Your task to perform on an android device: change notifications settings Image 0: 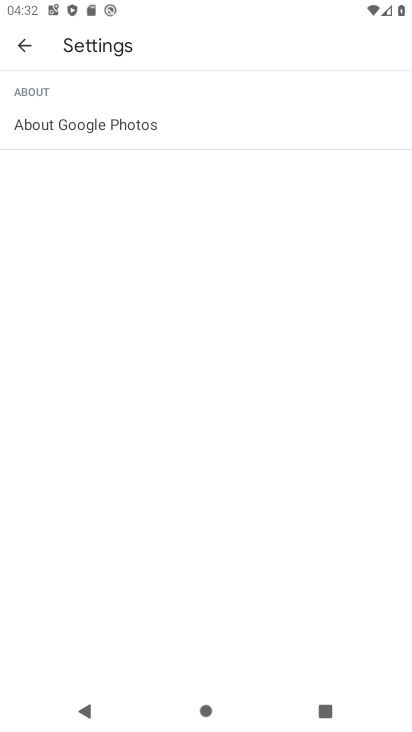
Step 0: press back button
Your task to perform on an android device: change notifications settings Image 1: 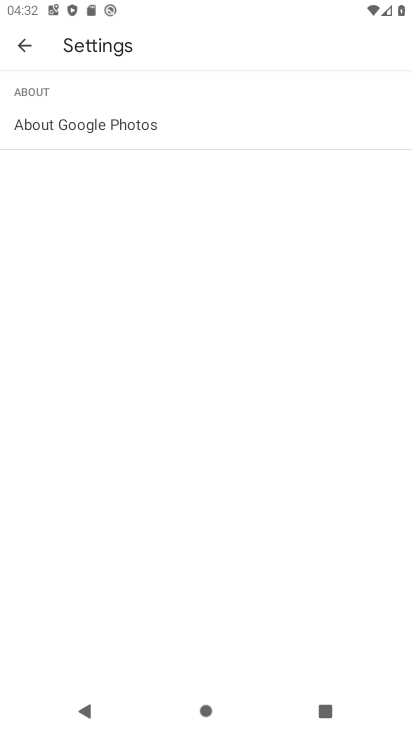
Step 1: press back button
Your task to perform on an android device: change notifications settings Image 2: 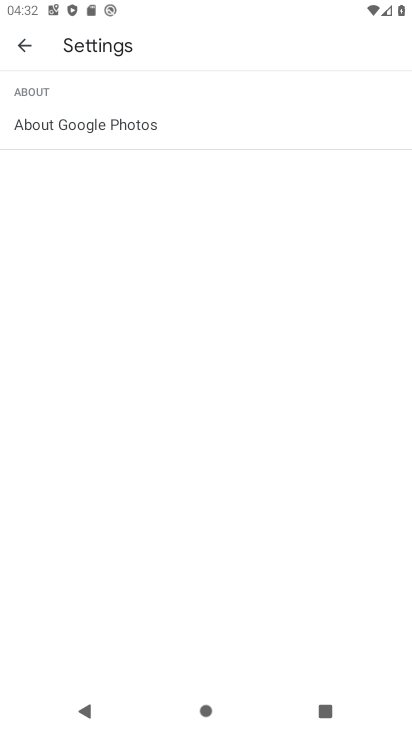
Step 2: press home button
Your task to perform on an android device: change notifications settings Image 3: 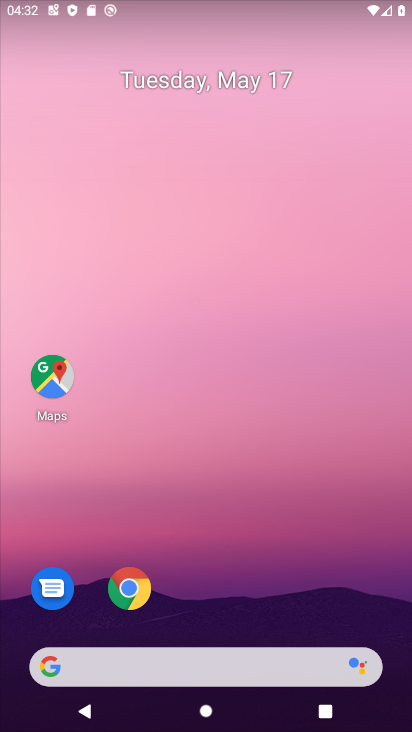
Step 3: drag from (255, 566) to (202, 202)
Your task to perform on an android device: change notifications settings Image 4: 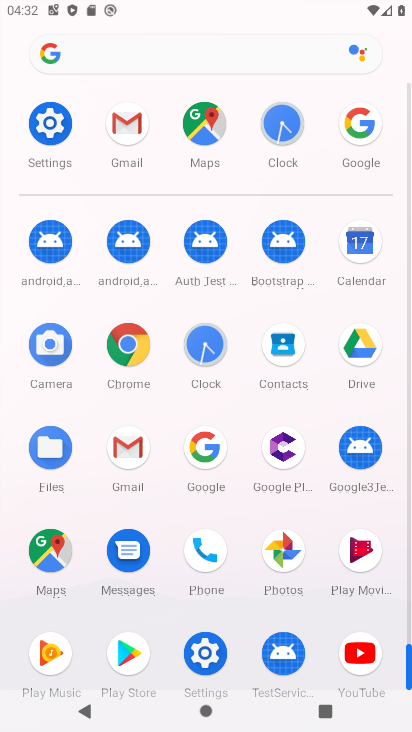
Step 4: drag from (246, 561) to (238, 393)
Your task to perform on an android device: change notifications settings Image 5: 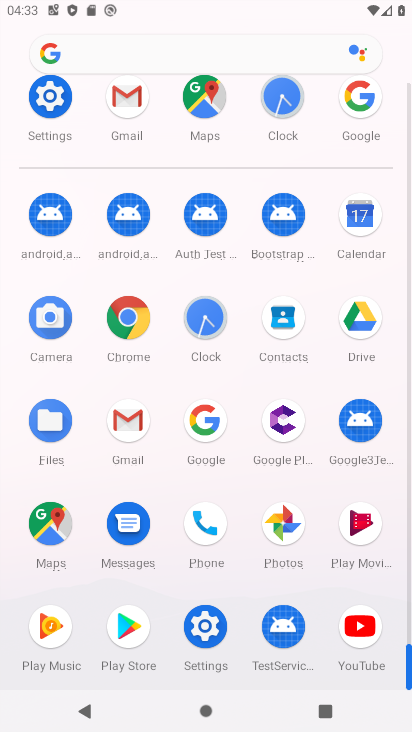
Step 5: click (203, 626)
Your task to perform on an android device: change notifications settings Image 6: 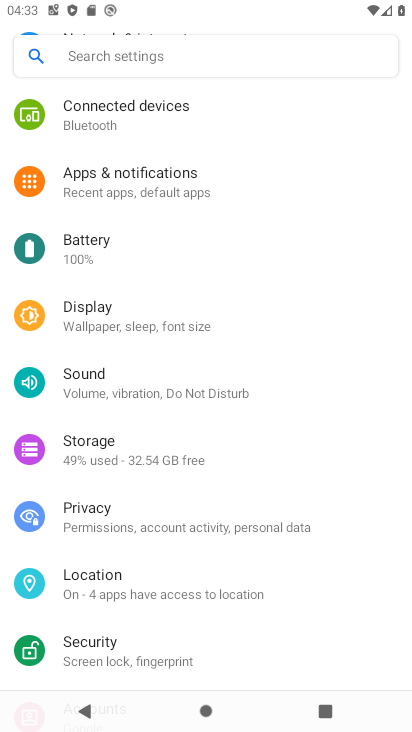
Step 6: click (119, 195)
Your task to perform on an android device: change notifications settings Image 7: 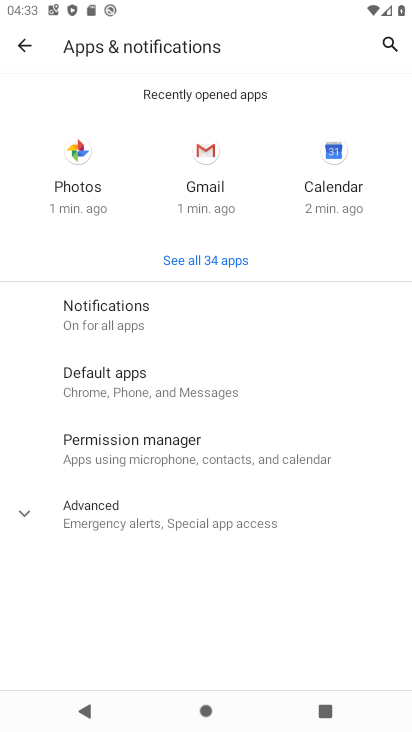
Step 7: click (104, 313)
Your task to perform on an android device: change notifications settings Image 8: 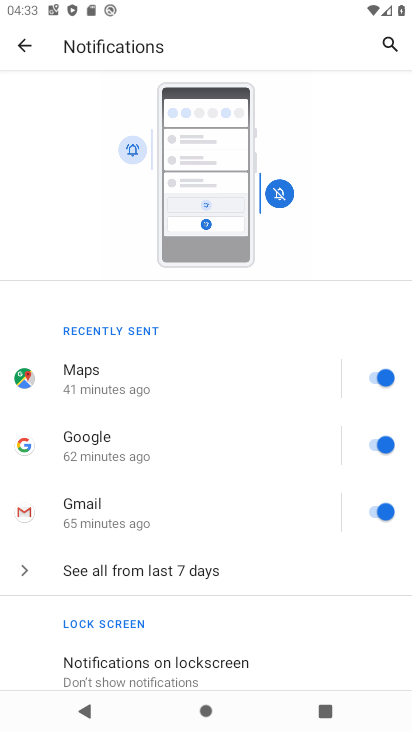
Step 8: drag from (229, 646) to (252, 417)
Your task to perform on an android device: change notifications settings Image 9: 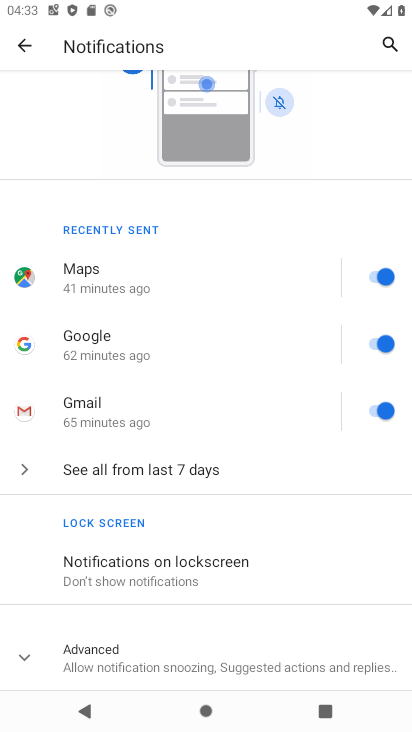
Step 9: click (235, 660)
Your task to perform on an android device: change notifications settings Image 10: 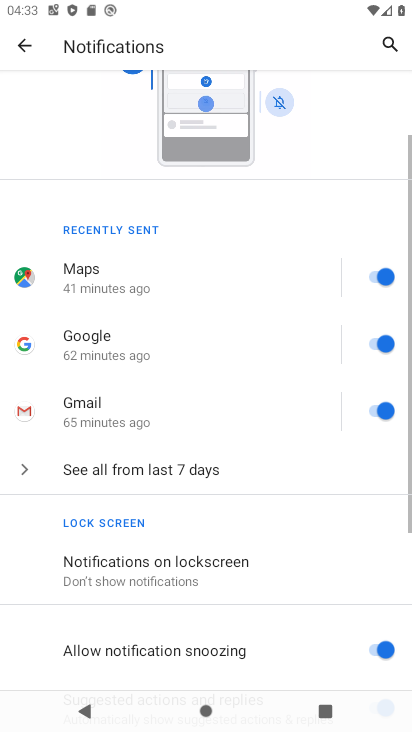
Step 10: drag from (236, 622) to (275, 440)
Your task to perform on an android device: change notifications settings Image 11: 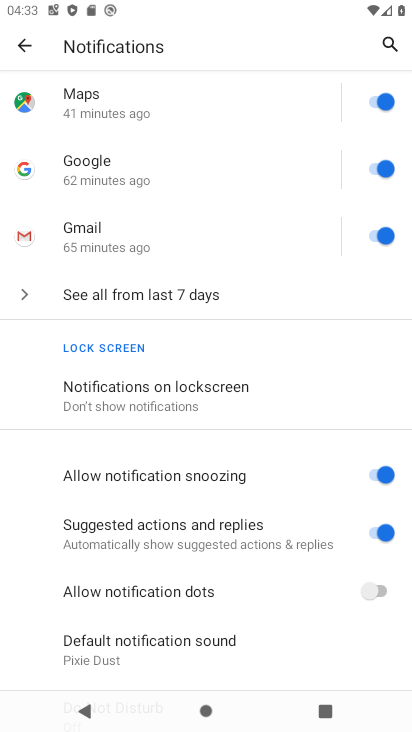
Step 11: click (360, 600)
Your task to perform on an android device: change notifications settings Image 12: 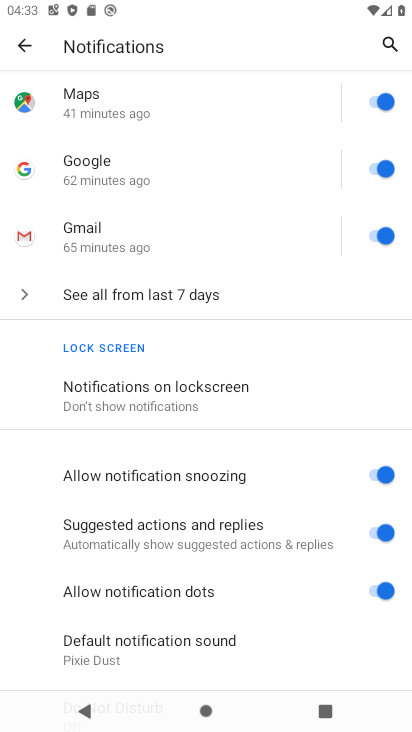
Step 12: task complete